Your task to perform on an android device: Open Google Chrome Image 0: 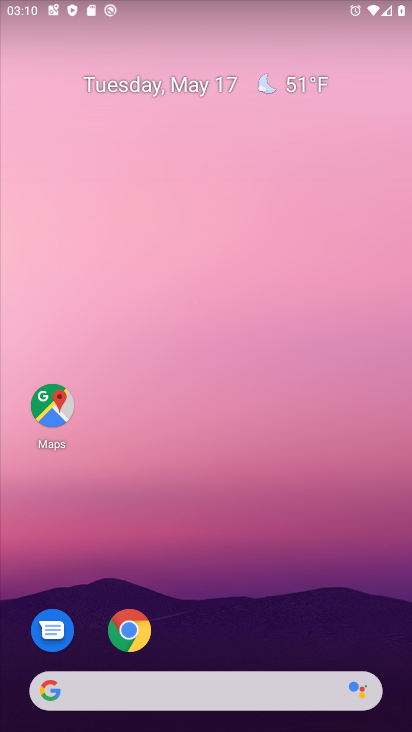
Step 0: click (121, 632)
Your task to perform on an android device: Open Google Chrome Image 1: 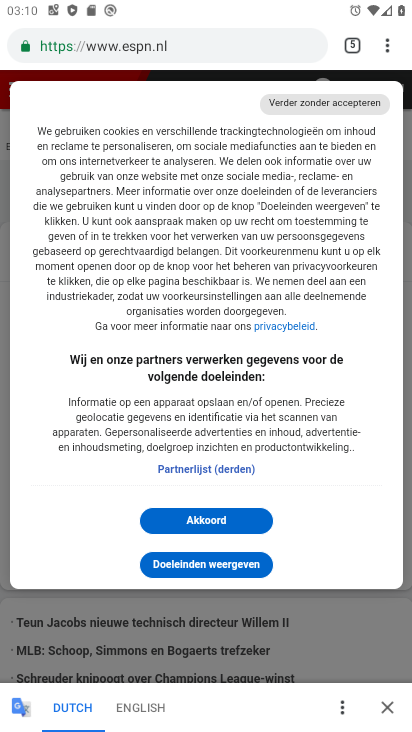
Step 1: click (224, 521)
Your task to perform on an android device: Open Google Chrome Image 2: 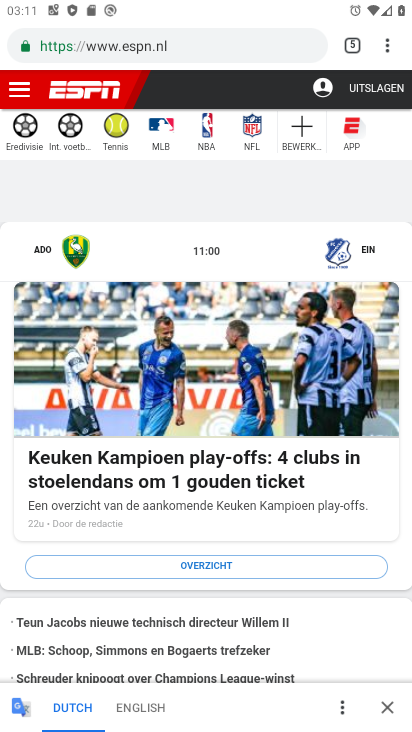
Step 2: task complete